Your task to perform on an android device: check the backup settings in the google photos Image 0: 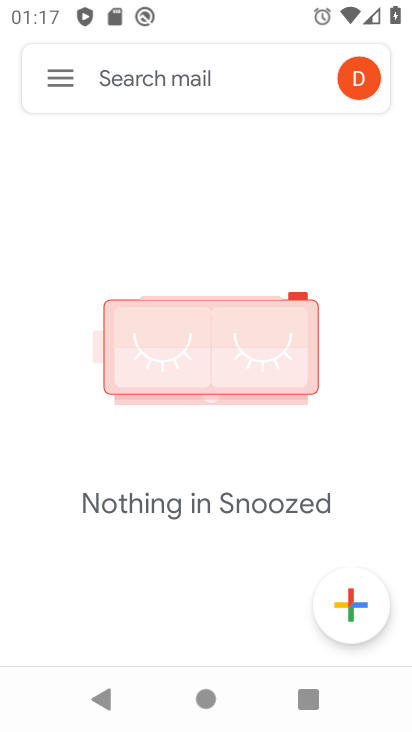
Step 0: press home button
Your task to perform on an android device: check the backup settings in the google photos Image 1: 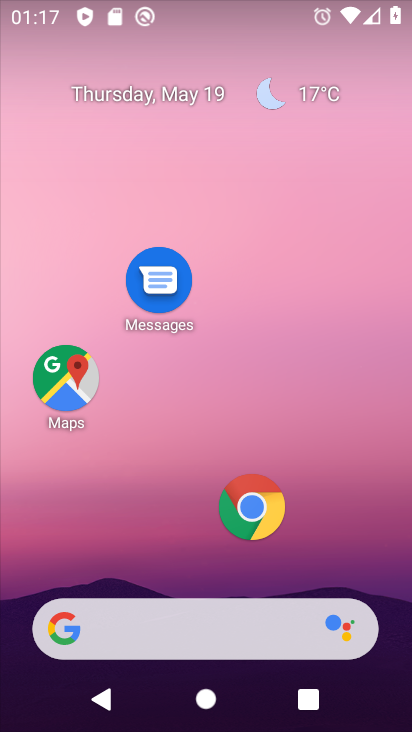
Step 1: drag from (172, 588) to (224, 234)
Your task to perform on an android device: check the backup settings in the google photos Image 2: 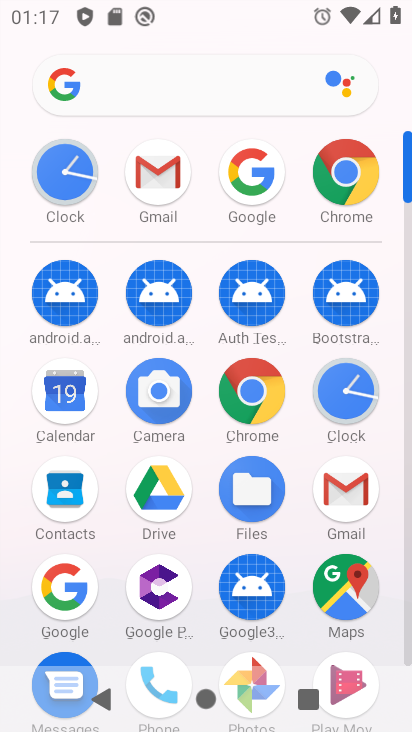
Step 2: drag from (258, 619) to (301, 264)
Your task to perform on an android device: check the backup settings in the google photos Image 3: 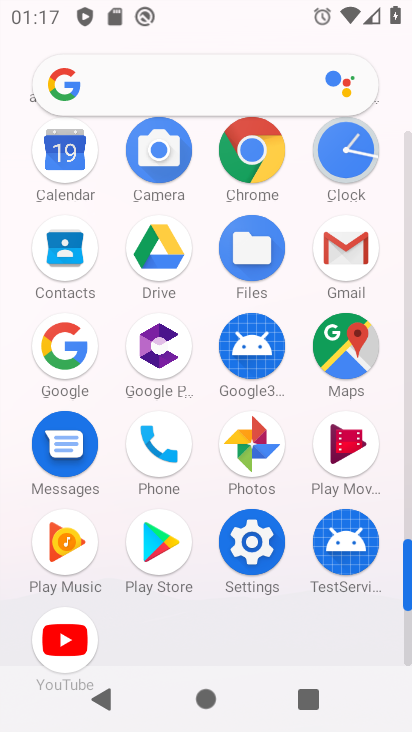
Step 3: click (246, 450)
Your task to perform on an android device: check the backup settings in the google photos Image 4: 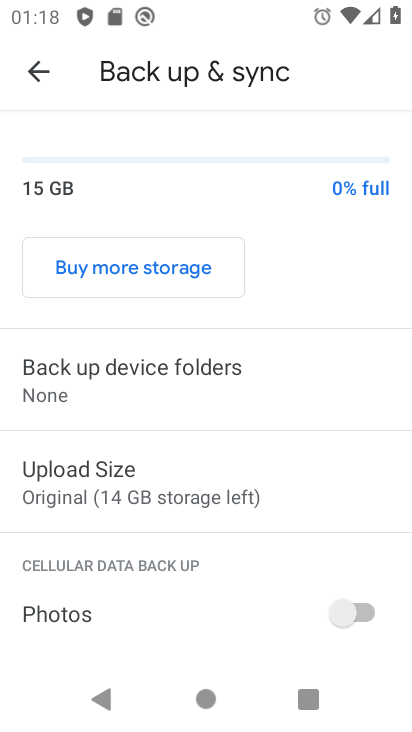
Step 4: task complete